Your task to perform on an android device: make emails show in primary in the gmail app Image 0: 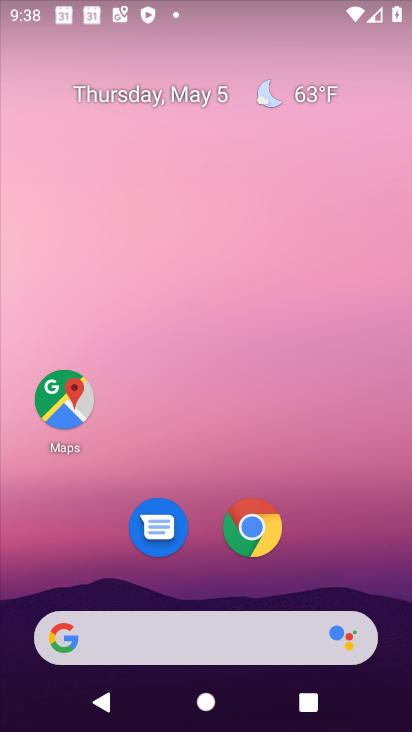
Step 0: drag from (253, 708) to (285, 10)
Your task to perform on an android device: make emails show in primary in the gmail app Image 1: 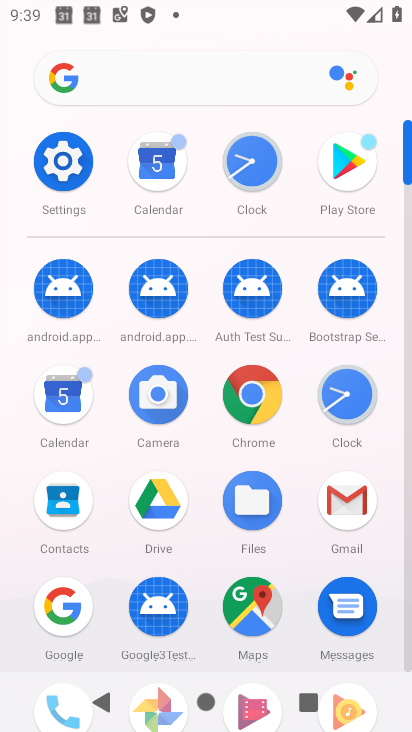
Step 1: click (340, 507)
Your task to perform on an android device: make emails show in primary in the gmail app Image 2: 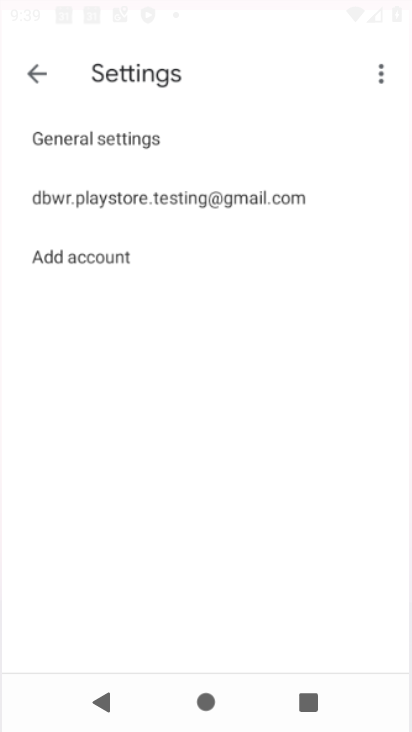
Step 2: click (340, 506)
Your task to perform on an android device: make emails show in primary in the gmail app Image 3: 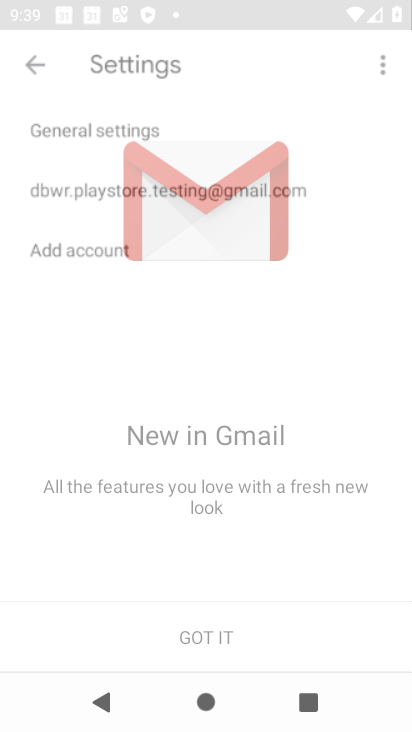
Step 3: click (340, 506)
Your task to perform on an android device: make emails show in primary in the gmail app Image 4: 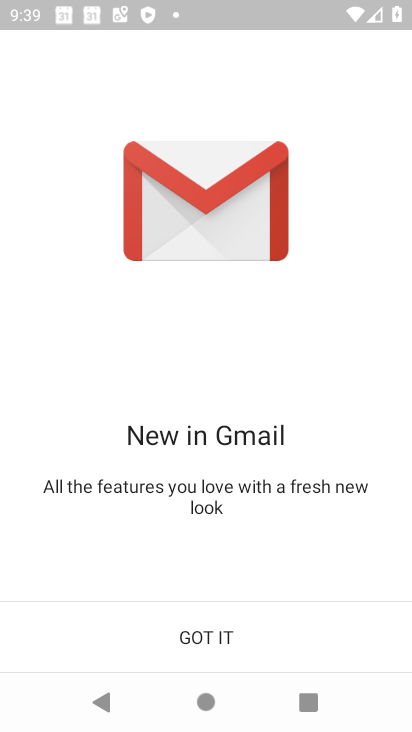
Step 4: click (236, 645)
Your task to perform on an android device: make emails show in primary in the gmail app Image 5: 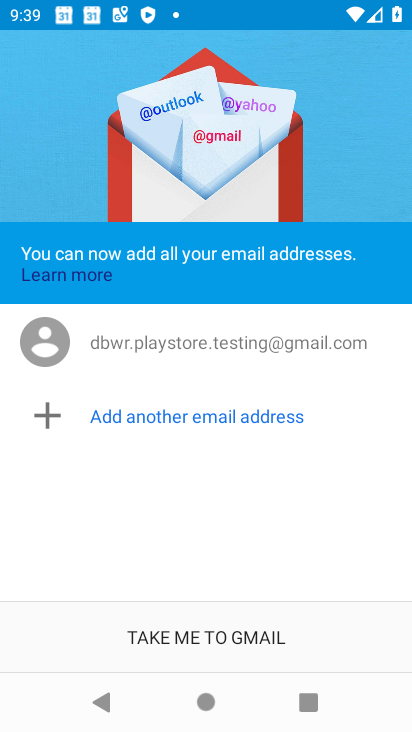
Step 5: click (231, 641)
Your task to perform on an android device: make emails show in primary in the gmail app Image 6: 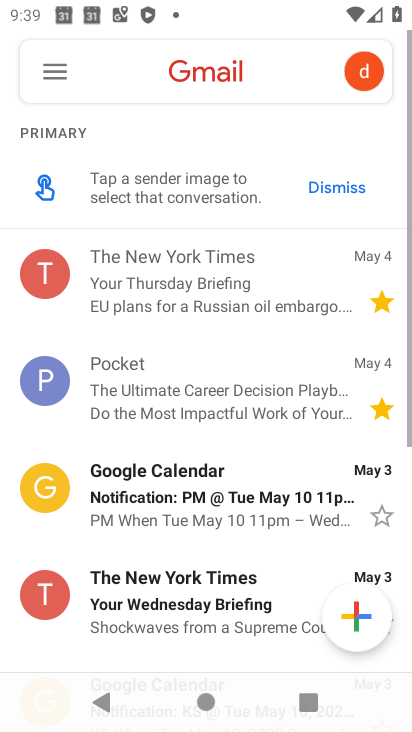
Step 6: click (65, 69)
Your task to perform on an android device: make emails show in primary in the gmail app Image 7: 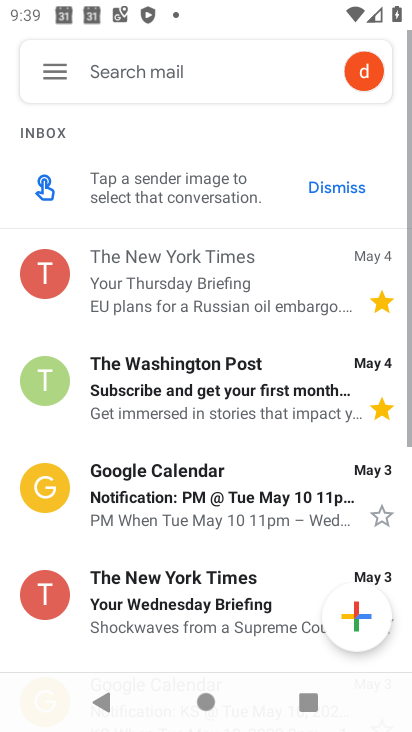
Step 7: drag from (132, 655) to (158, 16)
Your task to perform on an android device: make emails show in primary in the gmail app Image 8: 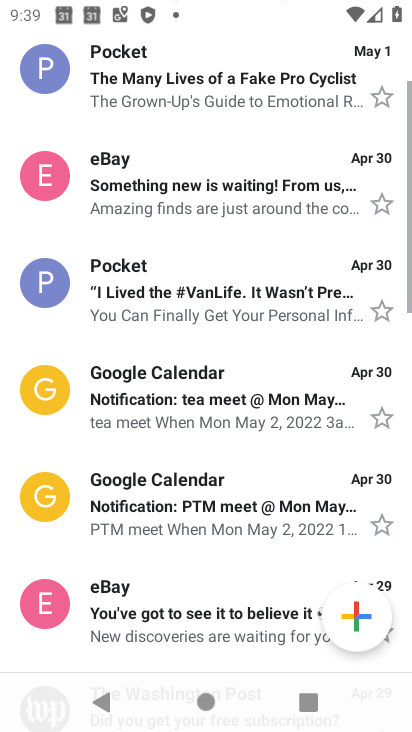
Step 8: drag from (219, 159) to (275, 711)
Your task to perform on an android device: make emails show in primary in the gmail app Image 9: 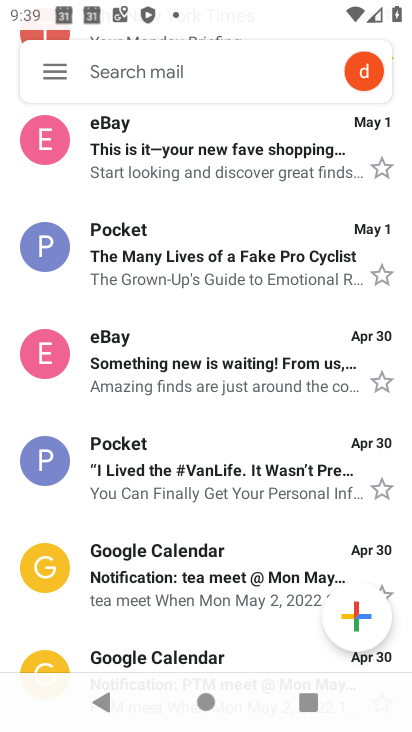
Step 9: click (57, 75)
Your task to perform on an android device: make emails show in primary in the gmail app Image 10: 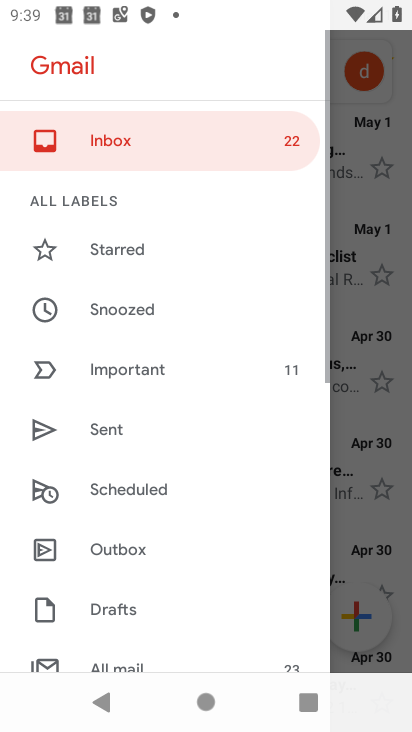
Step 10: drag from (193, 631) to (232, 0)
Your task to perform on an android device: make emails show in primary in the gmail app Image 11: 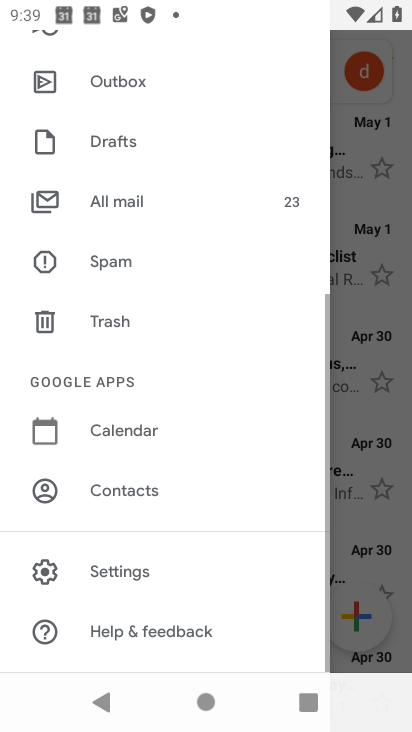
Step 11: click (126, 578)
Your task to perform on an android device: make emails show in primary in the gmail app Image 12: 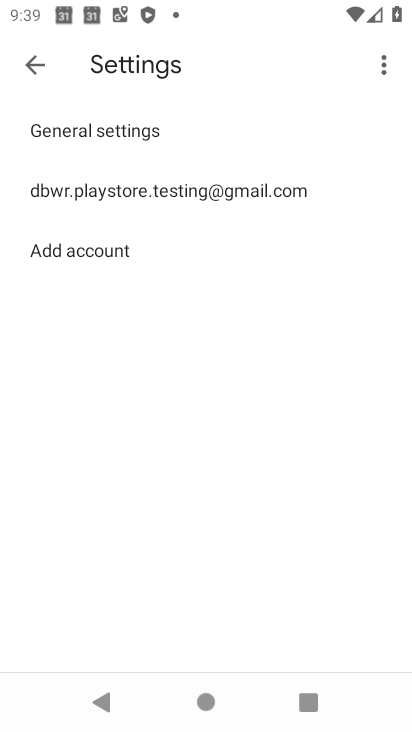
Step 12: click (123, 180)
Your task to perform on an android device: make emails show in primary in the gmail app Image 13: 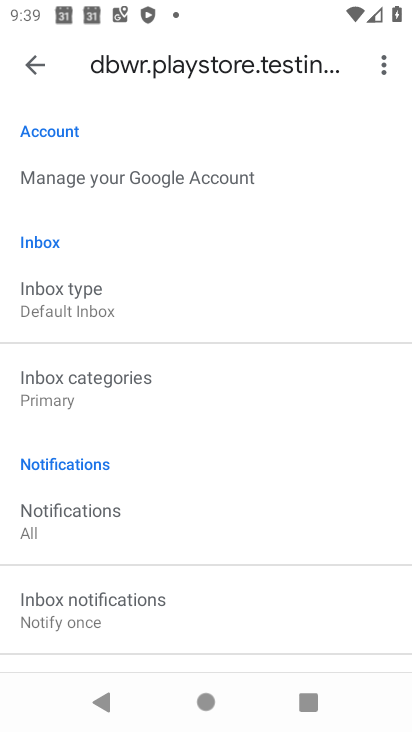
Step 13: task complete